Your task to perform on an android device: turn off notifications in google photos Image 0: 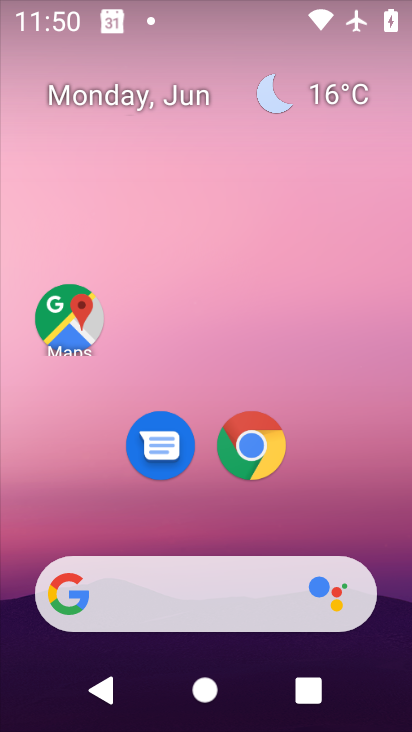
Step 0: drag from (341, 515) to (311, 83)
Your task to perform on an android device: turn off notifications in google photos Image 1: 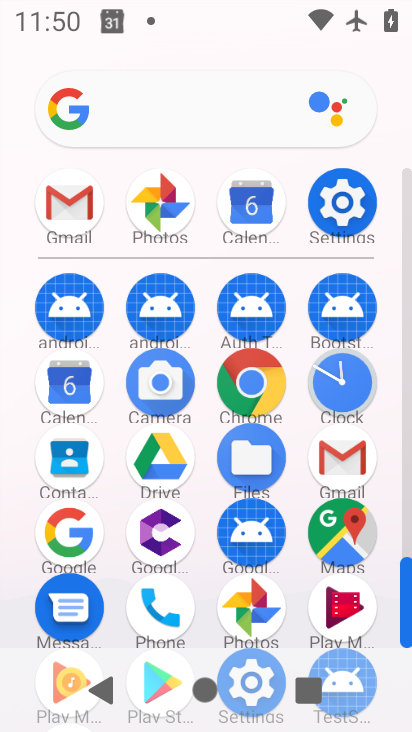
Step 1: click (168, 193)
Your task to perform on an android device: turn off notifications in google photos Image 2: 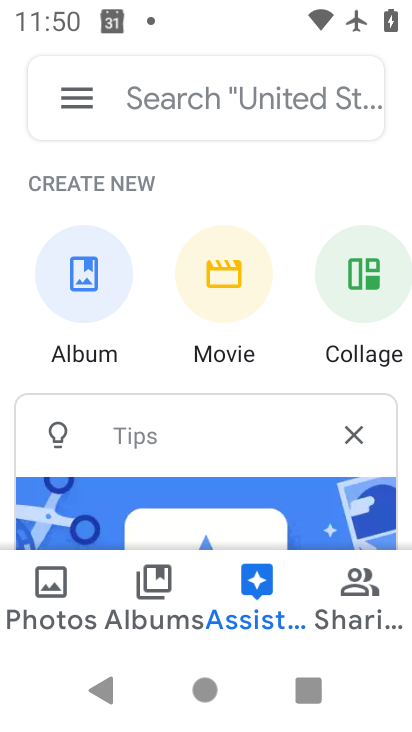
Step 2: click (75, 98)
Your task to perform on an android device: turn off notifications in google photos Image 3: 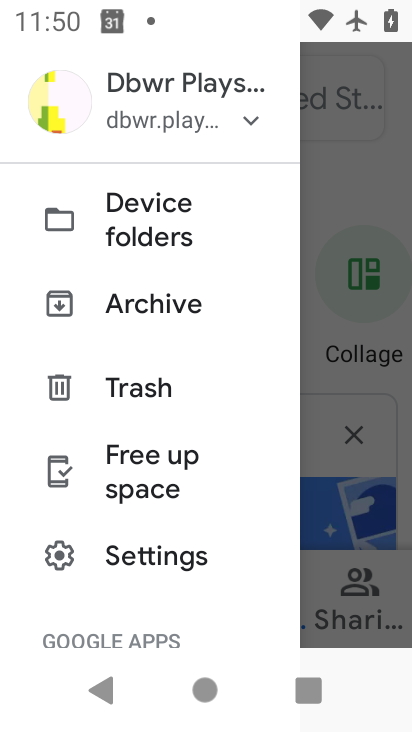
Step 3: click (123, 556)
Your task to perform on an android device: turn off notifications in google photos Image 4: 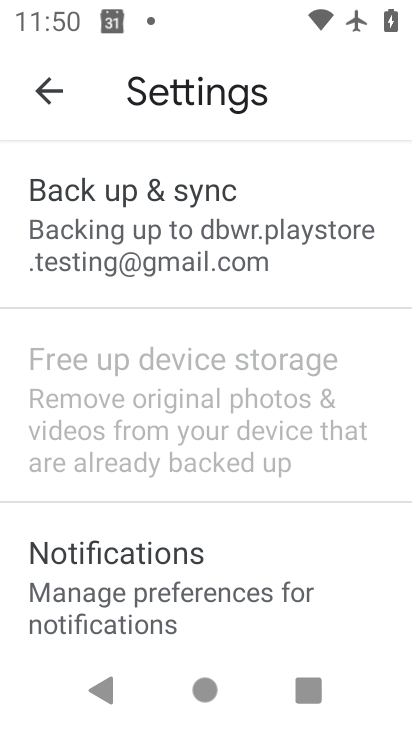
Step 4: drag from (254, 552) to (245, 331)
Your task to perform on an android device: turn off notifications in google photos Image 5: 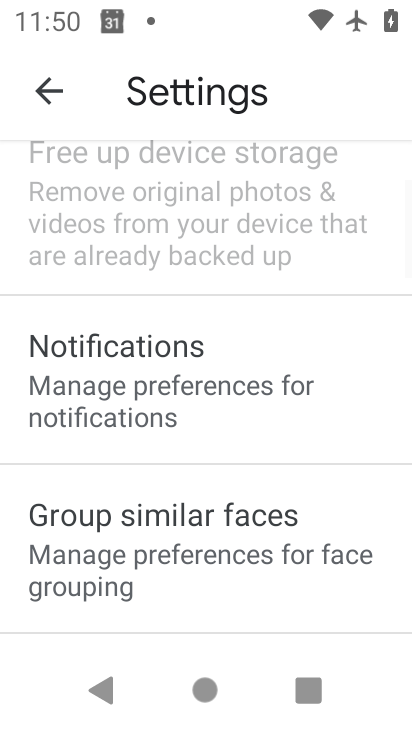
Step 5: click (202, 376)
Your task to perform on an android device: turn off notifications in google photos Image 6: 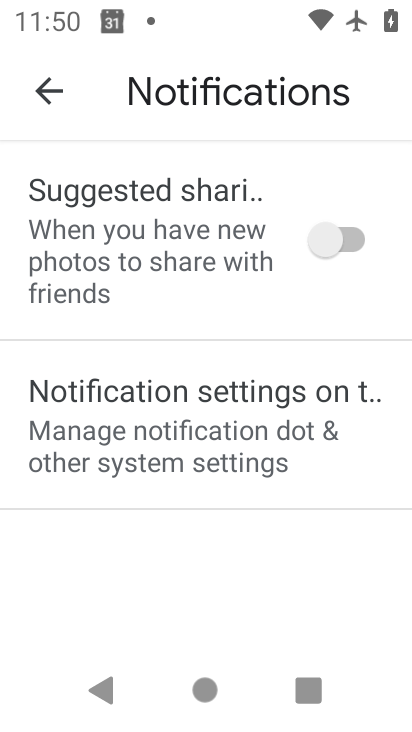
Step 6: click (269, 393)
Your task to perform on an android device: turn off notifications in google photos Image 7: 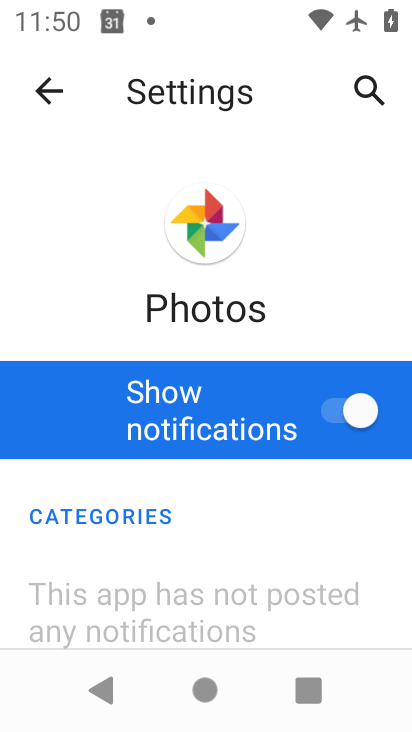
Step 7: click (351, 406)
Your task to perform on an android device: turn off notifications in google photos Image 8: 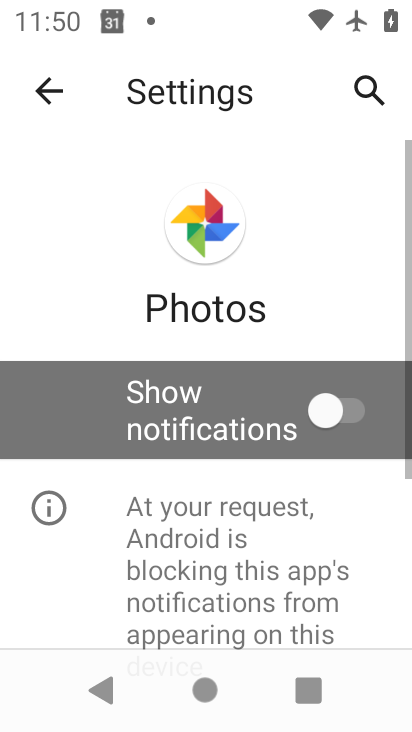
Step 8: task complete